Your task to perform on an android device: add a label to a message in the gmail app Image 0: 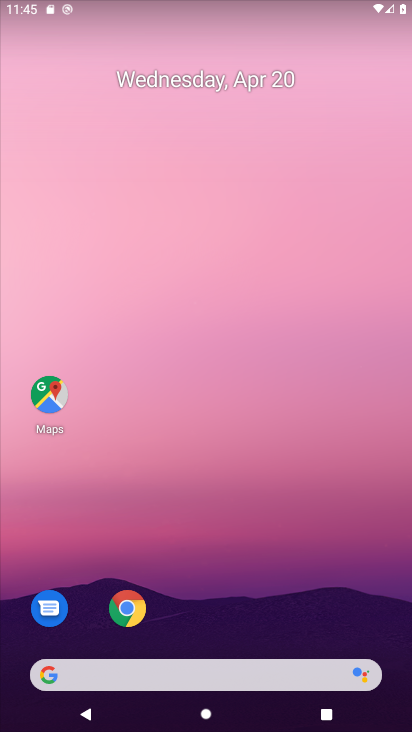
Step 0: drag from (200, 635) to (261, 31)
Your task to perform on an android device: add a label to a message in the gmail app Image 1: 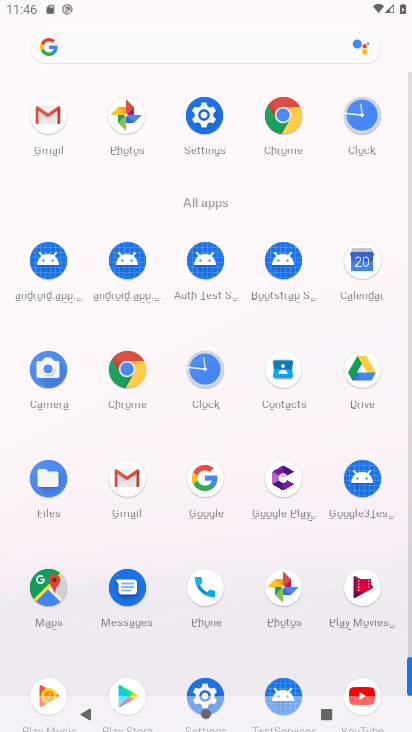
Step 1: click (52, 125)
Your task to perform on an android device: add a label to a message in the gmail app Image 2: 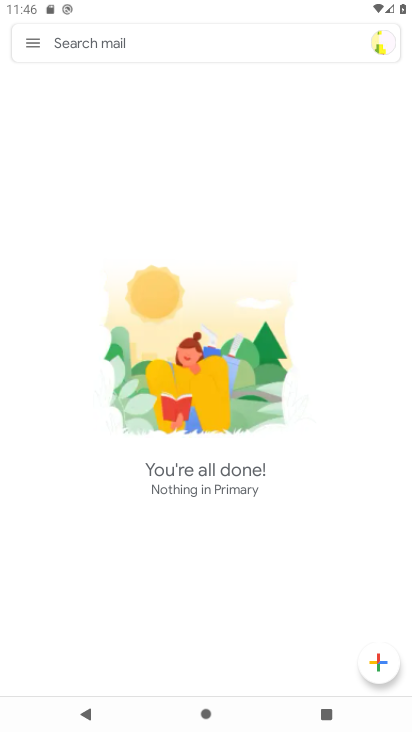
Step 2: task complete